Your task to perform on an android device: all mails in gmail Image 0: 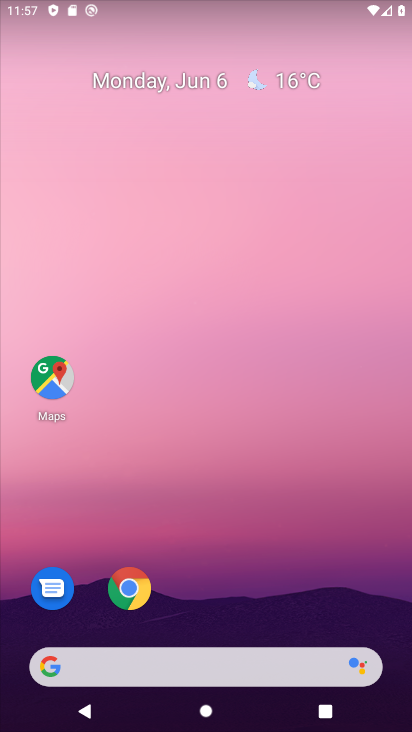
Step 0: click (201, 184)
Your task to perform on an android device: all mails in gmail Image 1: 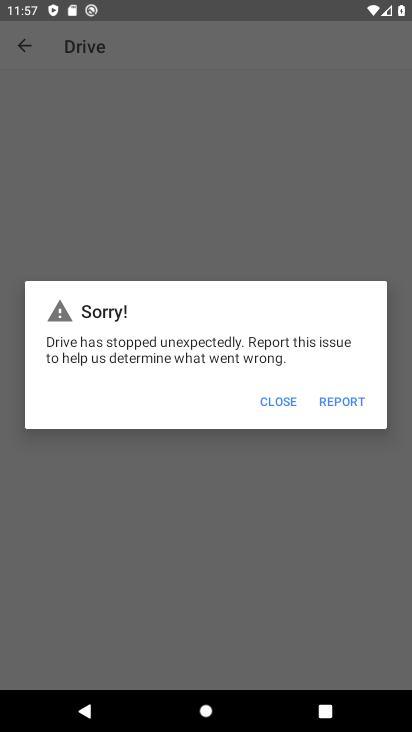
Step 1: press home button
Your task to perform on an android device: all mails in gmail Image 2: 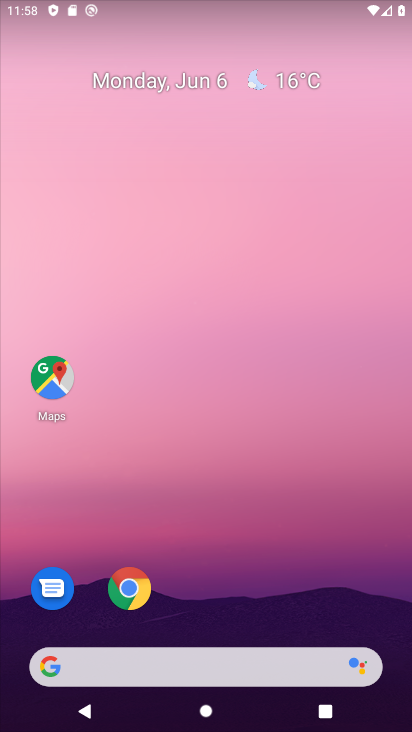
Step 2: drag from (229, 616) to (187, 157)
Your task to perform on an android device: all mails in gmail Image 3: 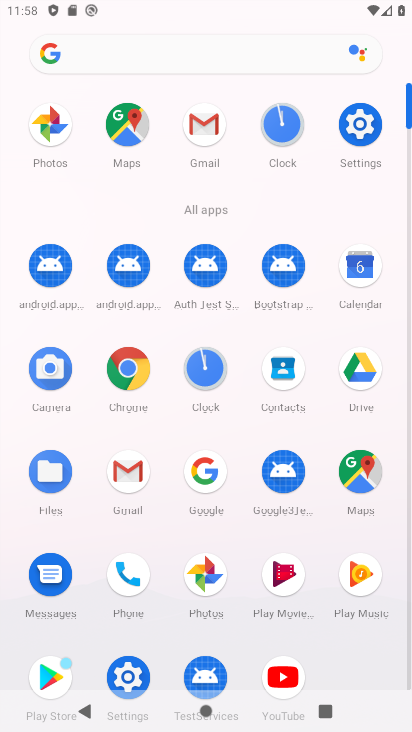
Step 3: click (191, 145)
Your task to perform on an android device: all mails in gmail Image 4: 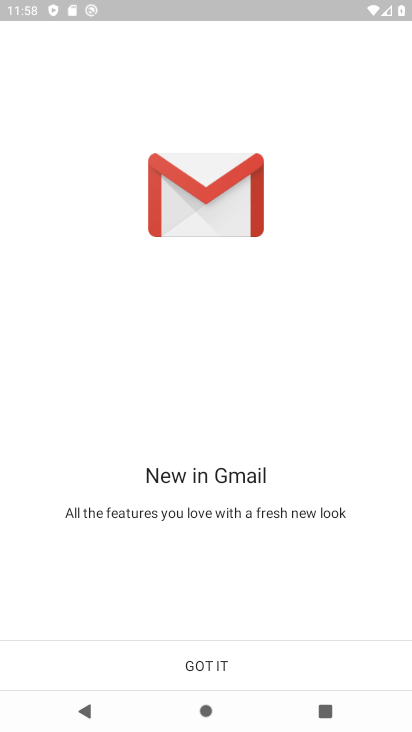
Step 4: click (292, 660)
Your task to perform on an android device: all mails in gmail Image 5: 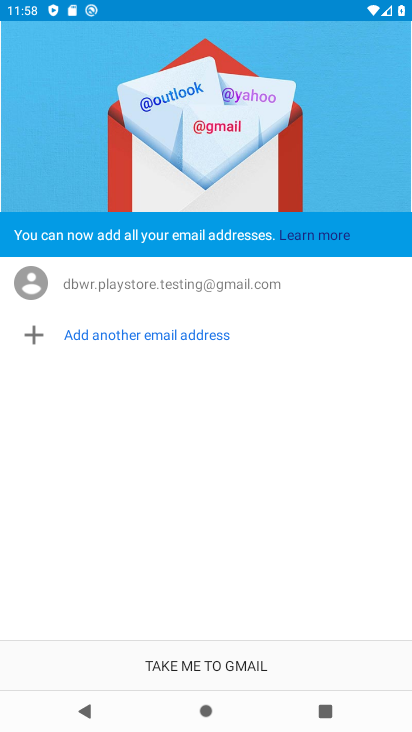
Step 5: click (247, 649)
Your task to perform on an android device: all mails in gmail Image 6: 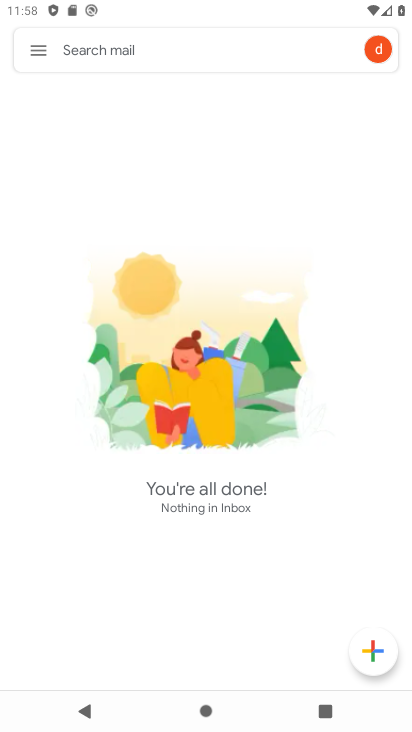
Step 6: task complete